Your task to perform on an android device: turn on data saver in the chrome app Image 0: 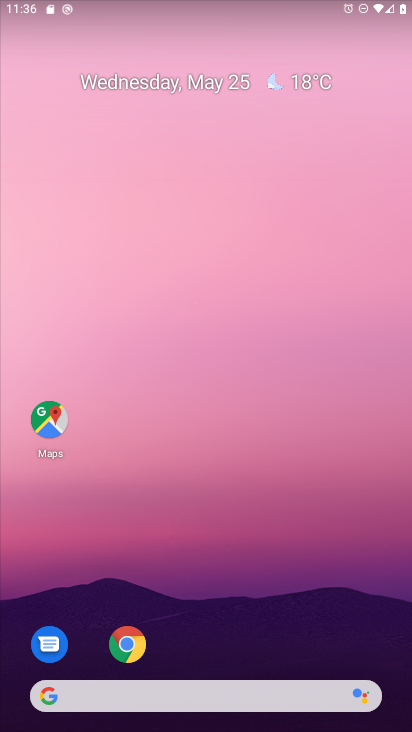
Step 0: press home button
Your task to perform on an android device: turn on data saver in the chrome app Image 1: 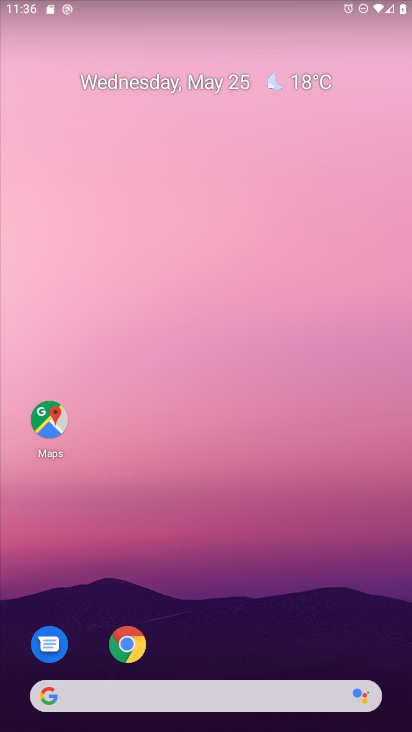
Step 1: click (123, 640)
Your task to perform on an android device: turn on data saver in the chrome app Image 2: 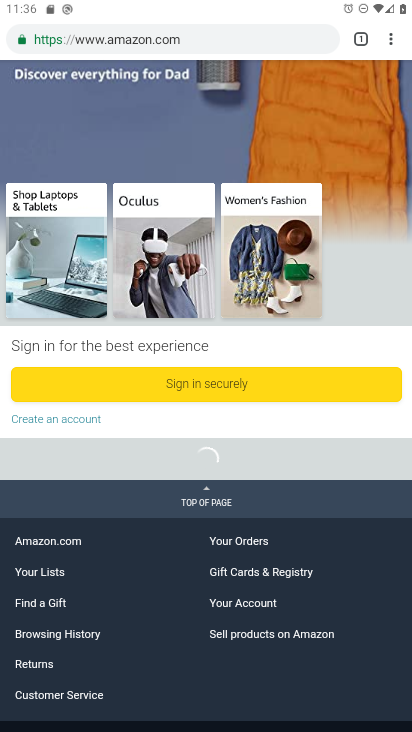
Step 2: click (389, 35)
Your task to perform on an android device: turn on data saver in the chrome app Image 3: 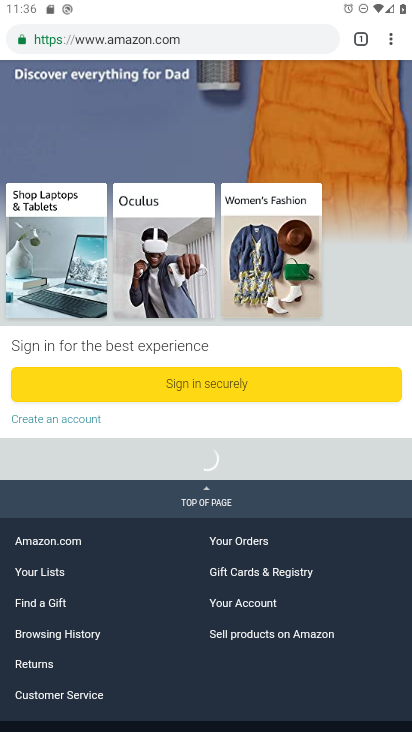
Step 3: click (392, 41)
Your task to perform on an android device: turn on data saver in the chrome app Image 4: 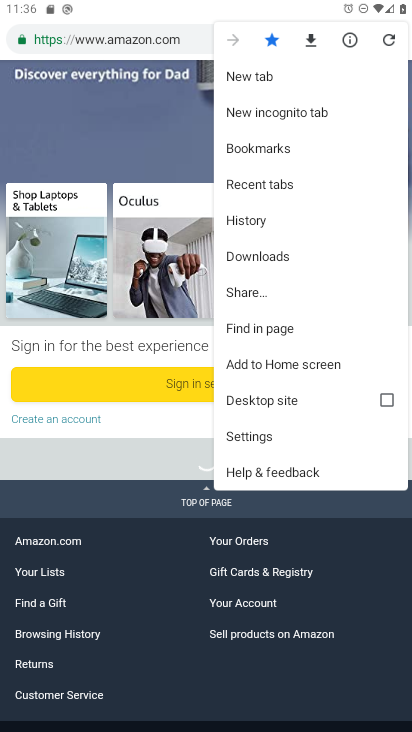
Step 4: click (276, 435)
Your task to perform on an android device: turn on data saver in the chrome app Image 5: 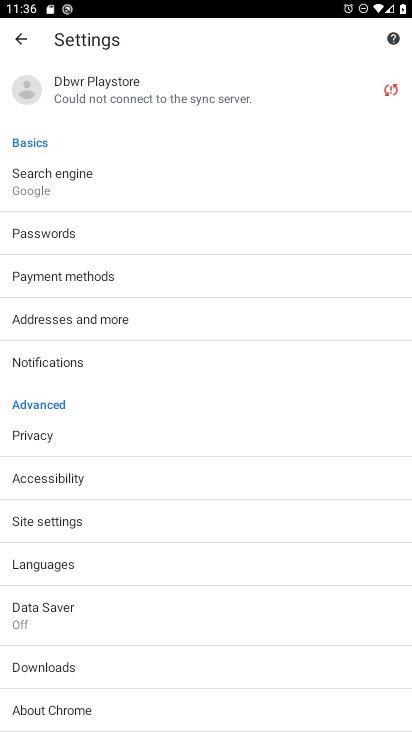
Step 5: click (61, 623)
Your task to perform on an android device: turn on data saver in the chrome app Image 6: 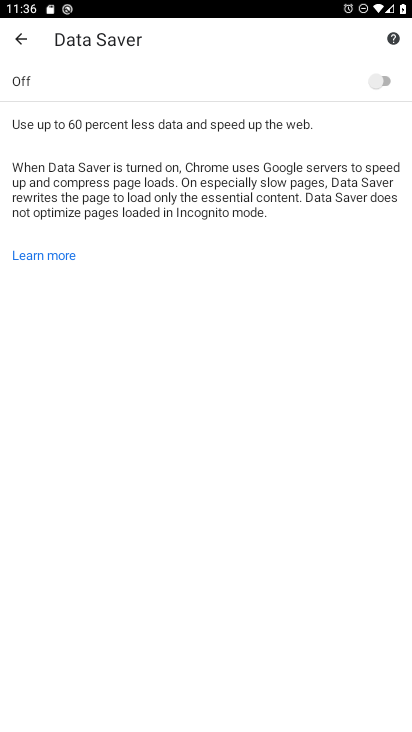
Step 6: click (388, 77)
Your task to perform on an android device: turn on data saver in the chrome app Image 7: 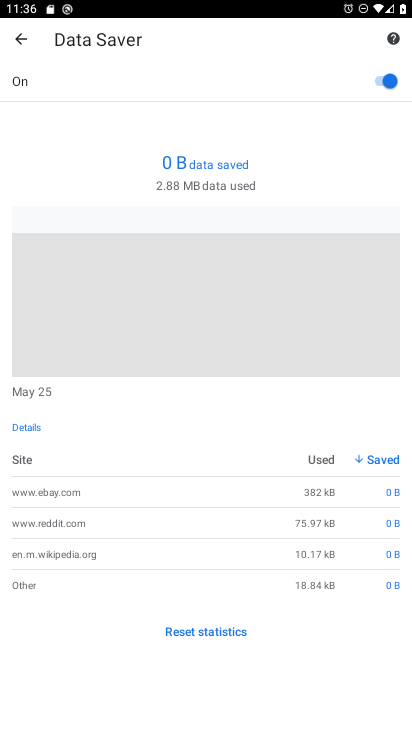
Step 7: task complete